Your task to perform on an android device: Play the latest video from the Wall Street Journal Image 0: 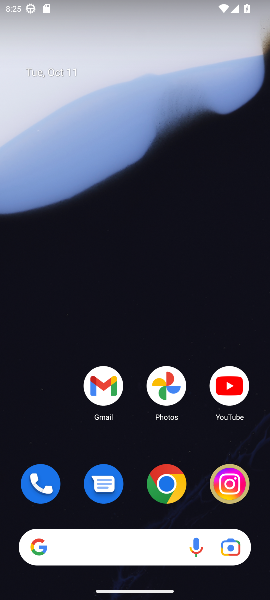
Step 0: click (232, 386)
Your task to perform on an android device: Play the latest video from the Wall Street Journal Image 1: 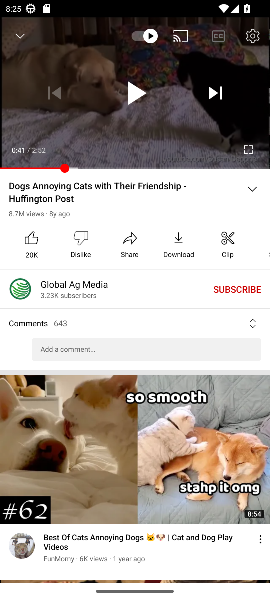
Step 1: press back button
Your task to perform on an android device: Play the latest video from the Wall Street Journal Image 2: 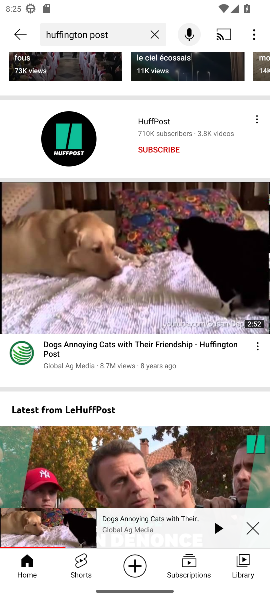
Step 2: click (155, 31)
Your task to perform on an android device: Play the latest video from the Wall Street Journal Image 3: 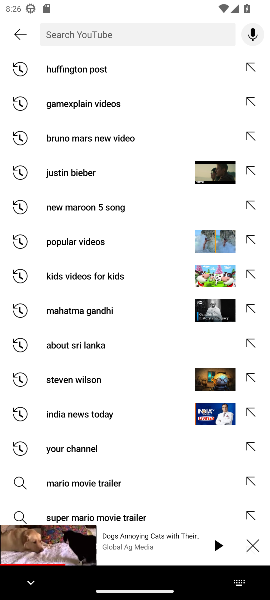
Step 3: type "Latest video from the Wall Street Journal"
Your task to perform on an android device: Play the latest video from the Wall Street Journal Image 4: 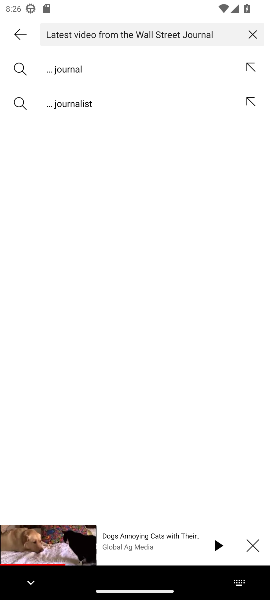
Step 4: click (79, 72)
Your task to perform on an android device: Play the latest video from the Wall Street Journal Image 5: 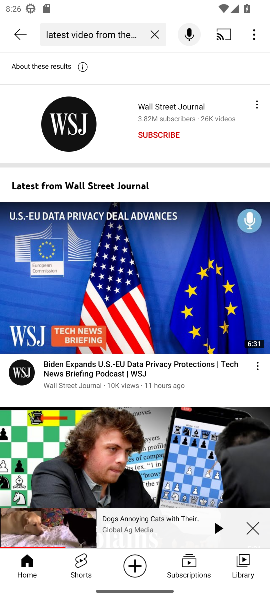
Step 5: click (125, 325)
Your task to perform on an android device: Play the latest video from the Wall Street Journal Image 6: 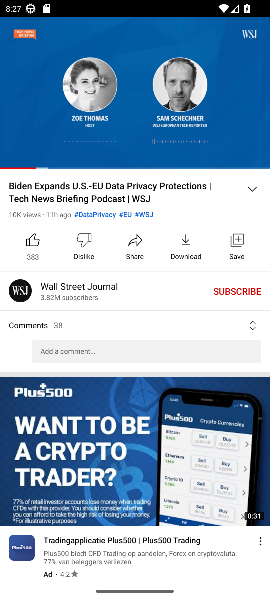
Step 6: task complete